Your task to perform on an android device: read, delete, or share a saved page in the chrome app Image 0: 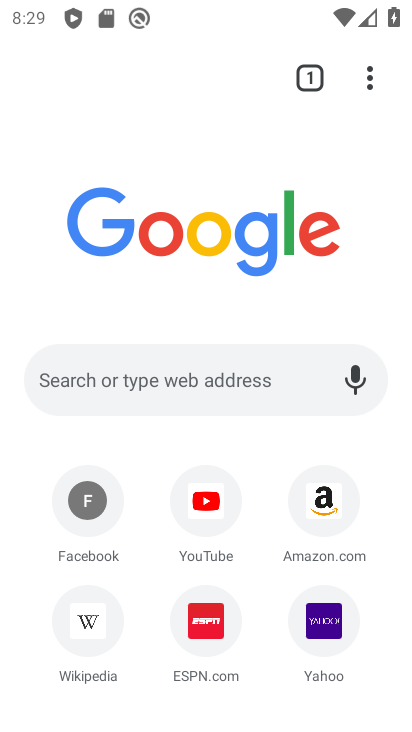
Step 0: press home button
Your task to perform on an android device: read, delete, or share a saved page in the chrome app Image 1: 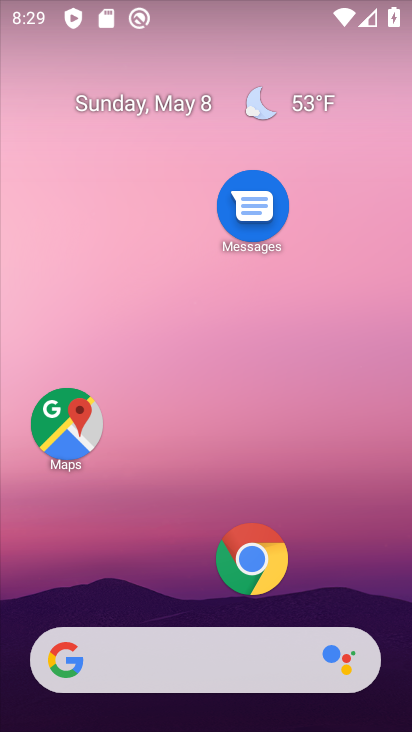
Step 1: click (258, 564)
Your task to perform on an android device: read, delete, or share a saved page in the chrome app Image 2: 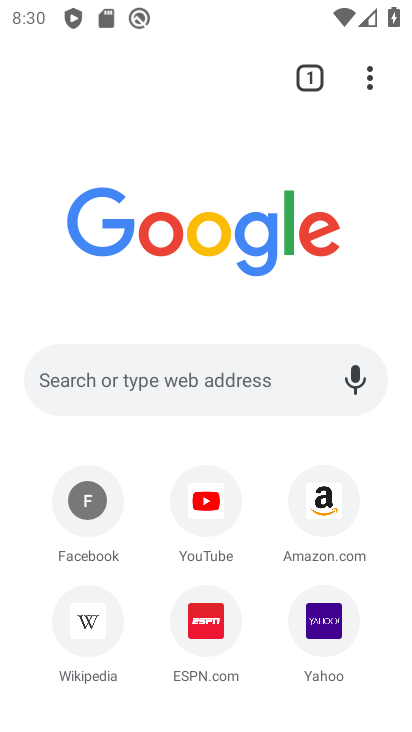
Step 2: click (364, 73)
Your task to perform on an android device: read, delete, or share a saved page in the chrome app Image 3: 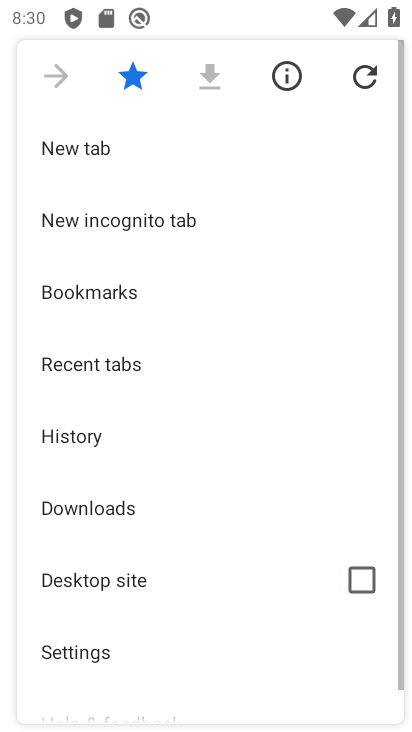
Step 3: click (156, 497)
Your task to perform on an android device: read, delete, or share a saved page in the chrome app Image 4: 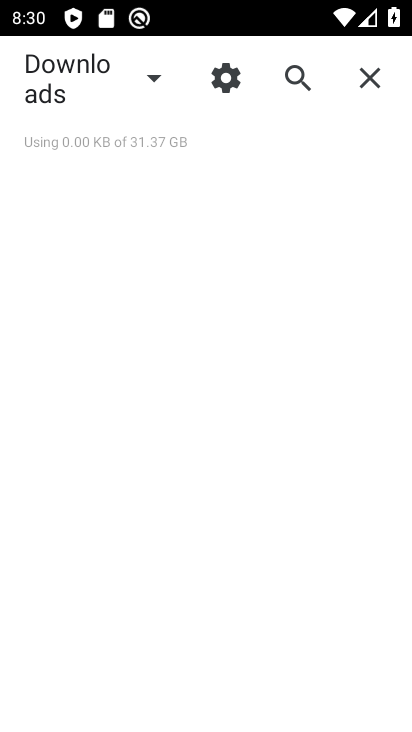
Step 4: task complete